Your task to perform on an android device: move a message to another label in the gmail app Image 0: 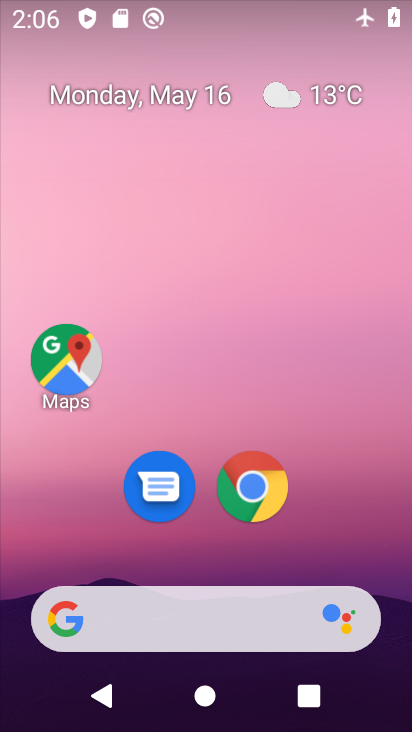
Step 0: drag from (353, 519) to (307, 111)
Your task to perform on an android device: move a message to another label in the gmail app Image 1: 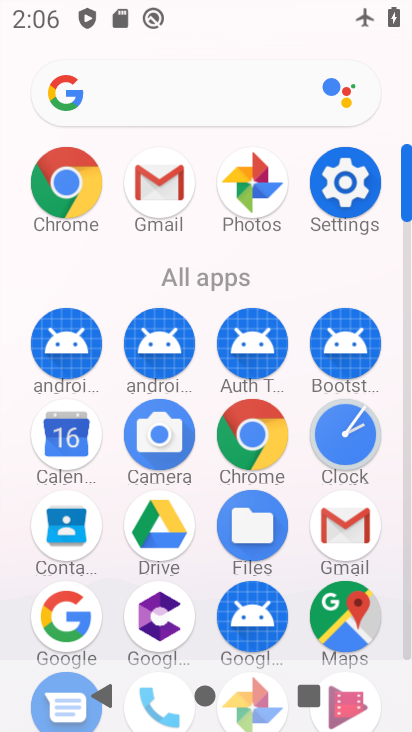
Step 1: click (156, 182)
Your task to perform on an android device: move a message to another label in the gmail app Image 2: 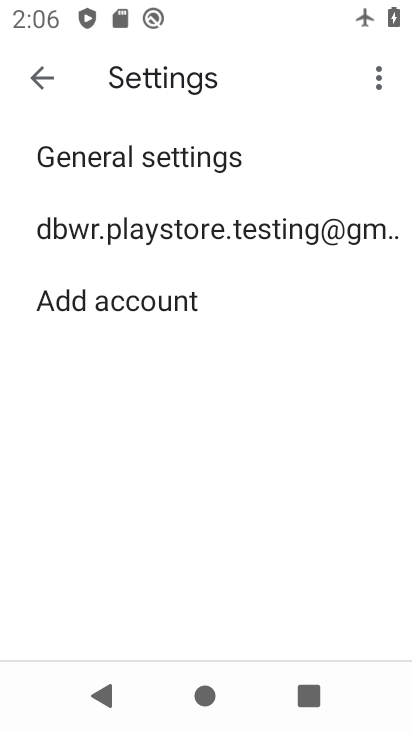
Step 2: click (65, 234)
Your task to perform on an android device: move a message to another label in the gmail app Image 3: 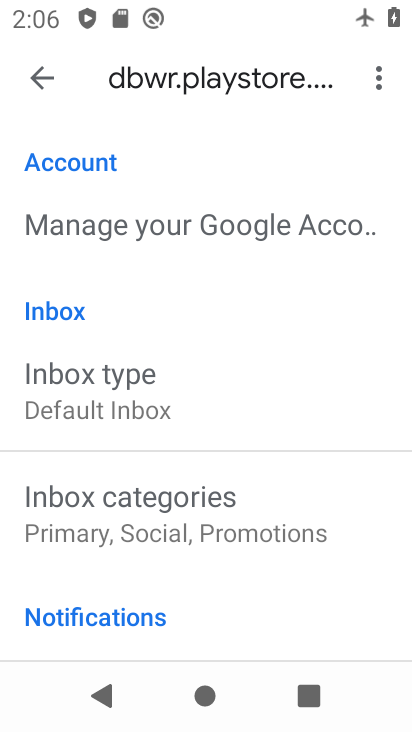
Step 3: click (32, 102)
Your task to perform on an android device: move a message to another label in the gmail app Image 4: 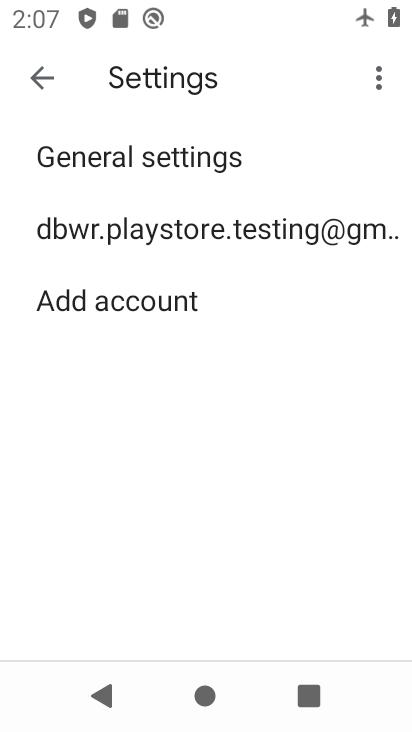
Step 4: click (32, 102)
Your task to perform on an android device: move a message to another label in the gmail app Image 5: 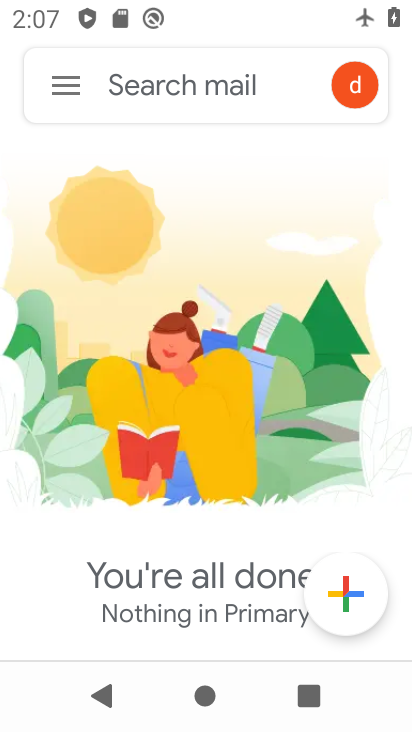
Step 5: click (60, 92)
Your task to perform on an android device: move a message to another label in the gmail app Image 6: 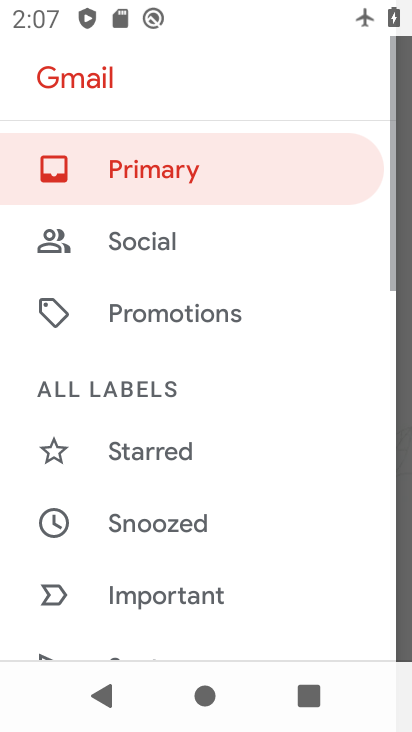
Step 6: drag from (167, 606) to (154, 220)
Your task to perform on an android device: move a message to another label in the gmail app Image 7: 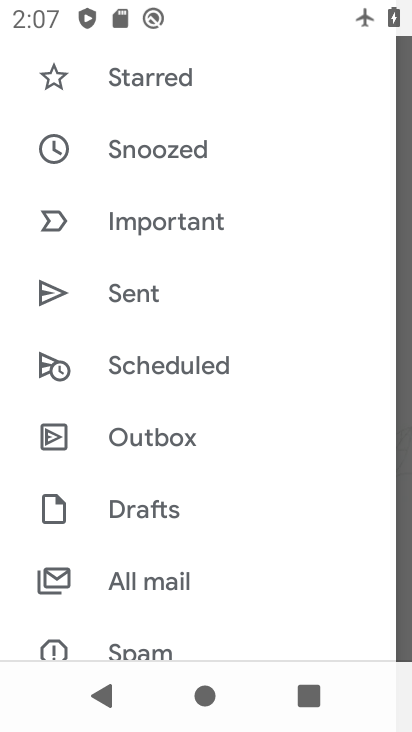
Step 7: click (196, 589)
Your task to perform on an android device: move a message to another label in the gmail app Image 8: 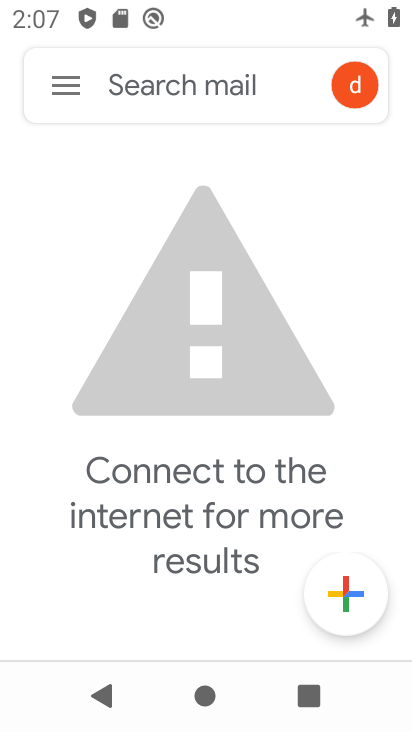
Step 8: task complete